Your task to perform on an android device: create a new album in the google photos Image 0: 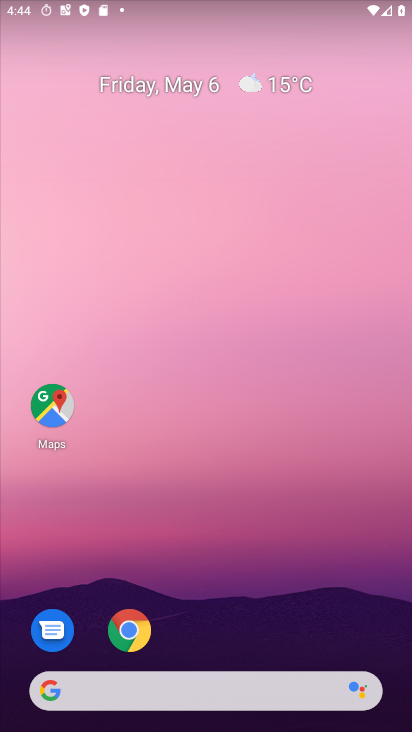
Step 0: drag from (217, 559) to (310, 103)
Your task to perform on an android device: create a new album in the google photos Image 1: 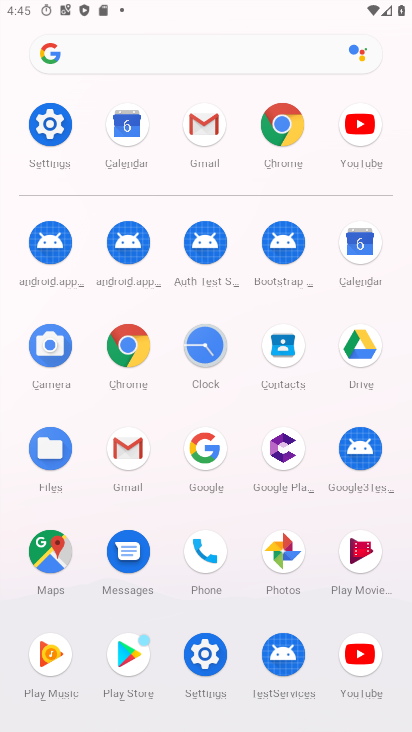
Step 1: click (299, 549)
Your task to perform on an android device: create a new album in the google photos Image 2: 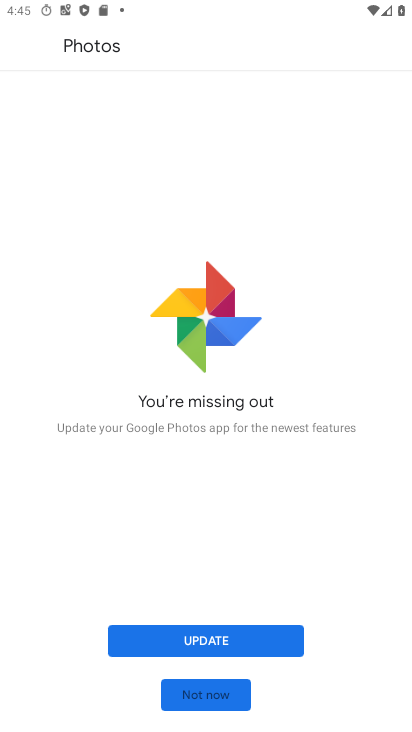
Step 2: click (195, 691)
Your task to perform on an android device: create a new album in the google photos Image 3: 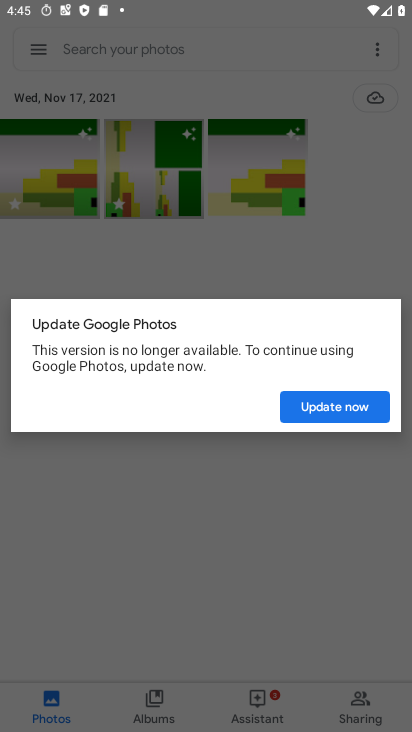
Step 3: click (339, 401)
Your task to perform on an android device: create a new album in the google photos Image 4: 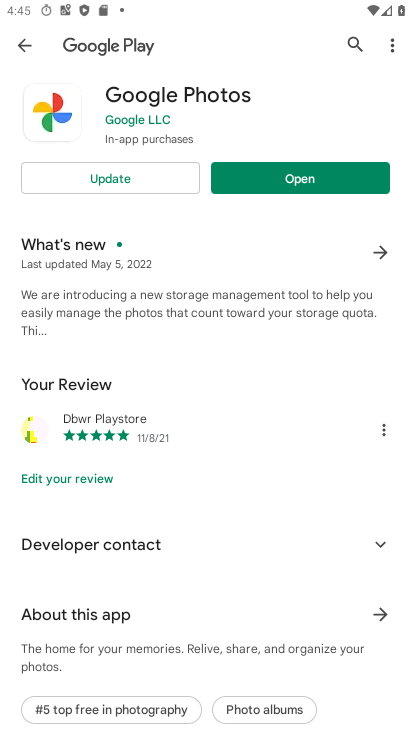
Step 4: click (21, 48)
Your task to perform on an android device: create a new album in the google photos Image 5: 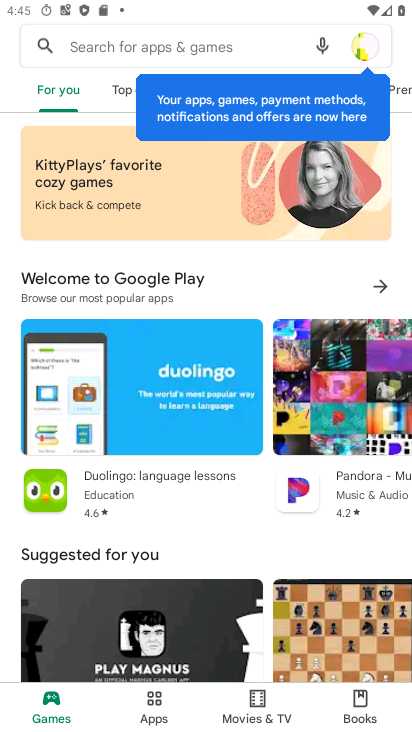
Step 5: press back button
Your task to perform on an android device: create a new album in the google photos Image 6: 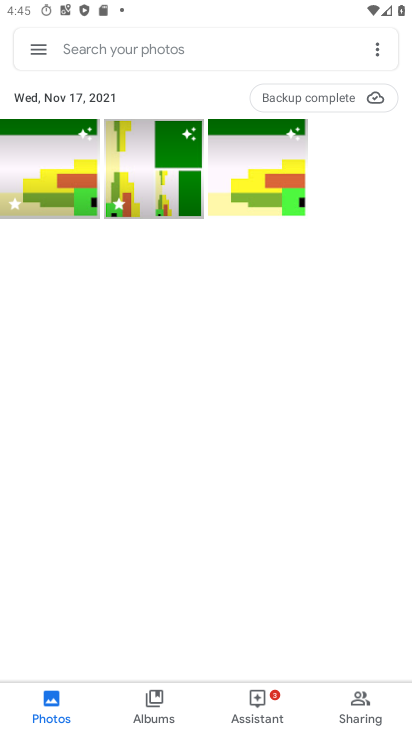
Step 6: click (380, 46)
Your task to perform on an android device: create a new album in the google photos Image 7: 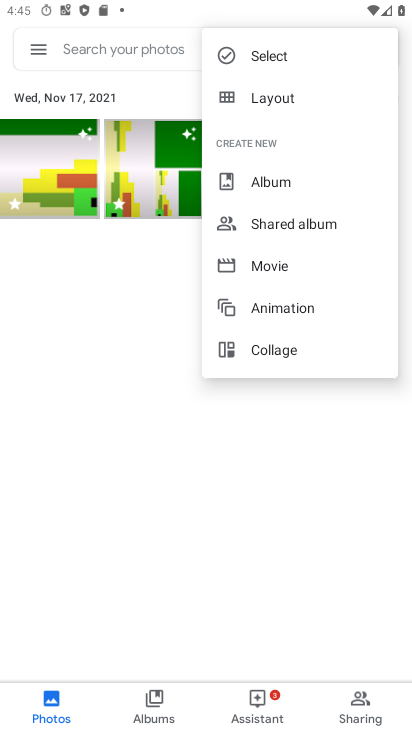
Step 7: click (278, 183)
Your task to perform on an android device: create a new album in the google photos Image 8: 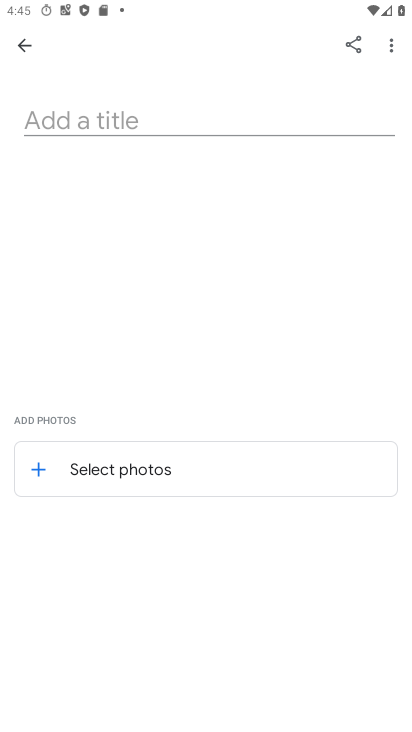
Step 8: click (5, 97)
Your task to perform on an android device: create a new album in the google photos Image 9: 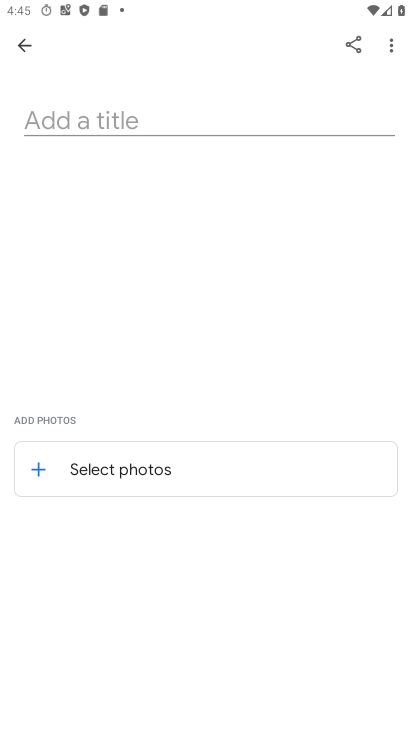
Step 9: type "dvdv"
Your task to perform on an android device: create a new album in the google photos Image 10: 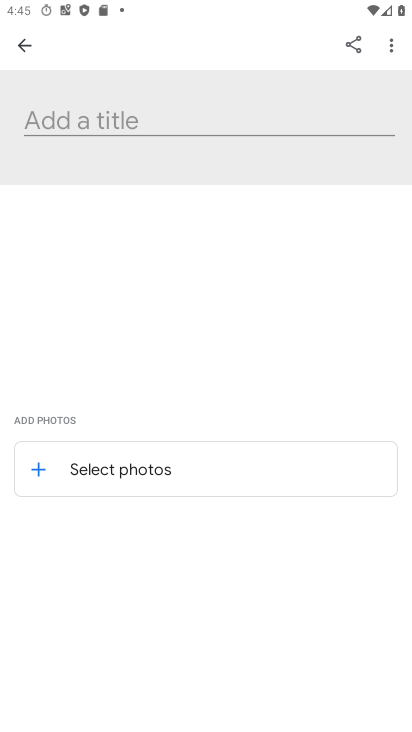
Step 10: click (110, 486)
Your task to perform on an android device: create a new album in the google photos Image 11: 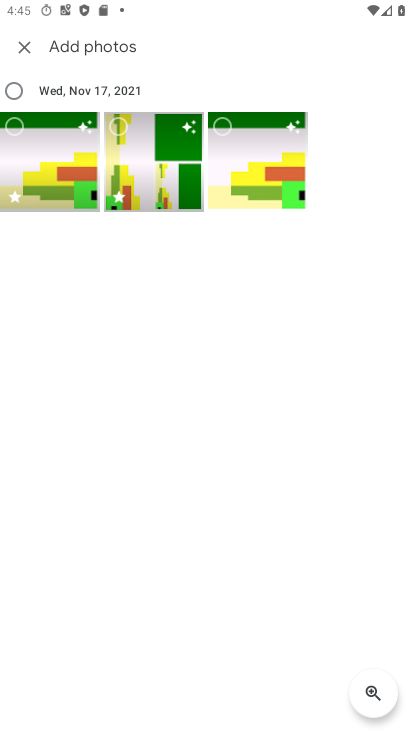
Step 11: click (7, 88)
Your task to perform on an android device: create a new album in the google photos Image 12: 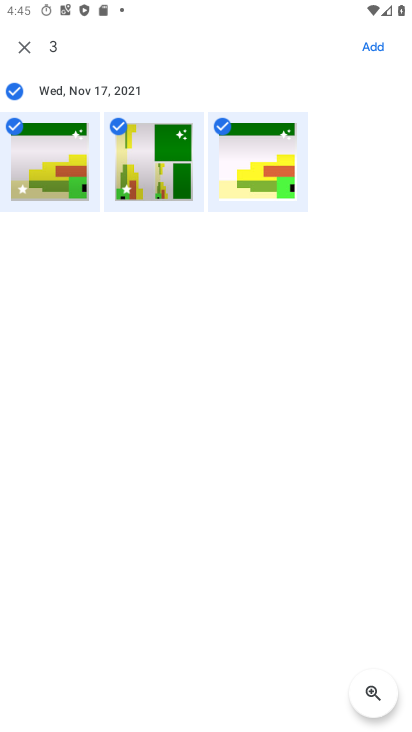
Step 12: click (371, 39)
Your task to perform on an android device: create a new album in the google photos Image 13: 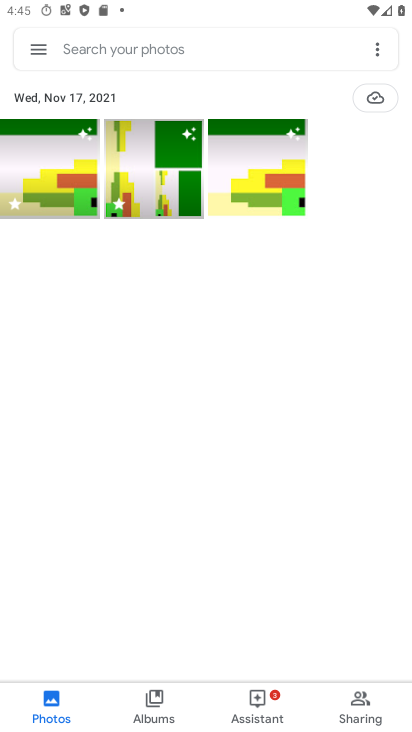
Step 13: task complete